Your task to perform on an android device: Go to accessibility settings Image 0: 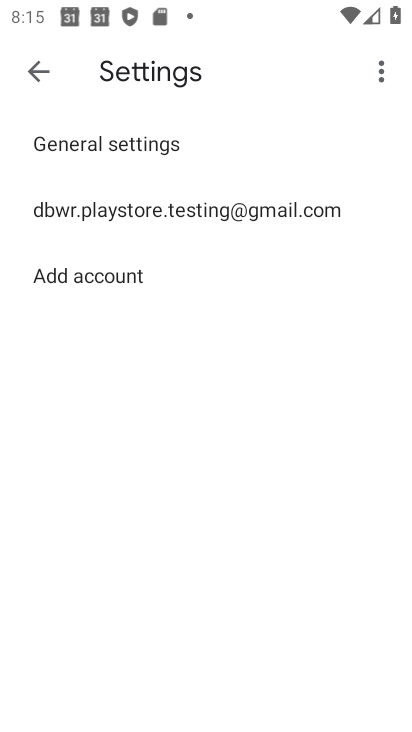
Step 0: press home button
Your task to perform on an android device: Go to accessibility settings Image 1: 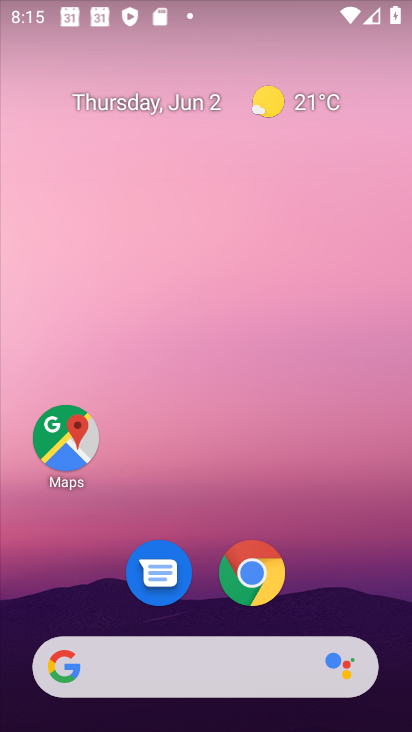
Step 1: drag from (213, 564) to (325, 67)
Your task to perform on an android device: Go to accessibility settings Image 2: 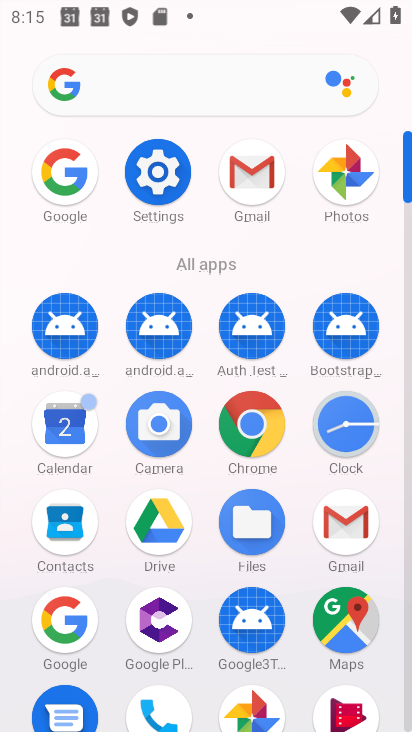
Step 2: click (153, 163)
Your task to perform on an android device: Go to accessibility settings Image 3: 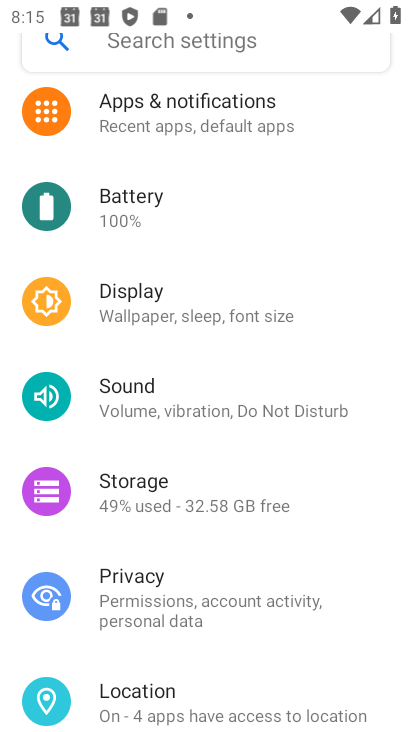
Step 3: drag from (225, 655) to (240, 132)
Your task to perform on an android device: Go to accessibility settings Image 4: 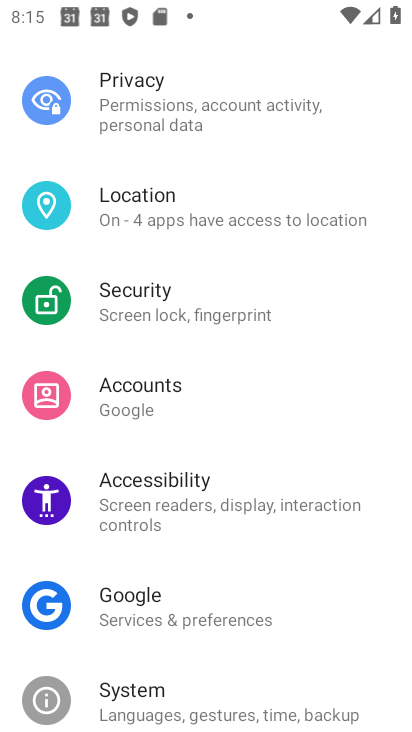
Step 4: click (175, 498)
Your task to perform on an android device: Go to accessibility settings Image 5: 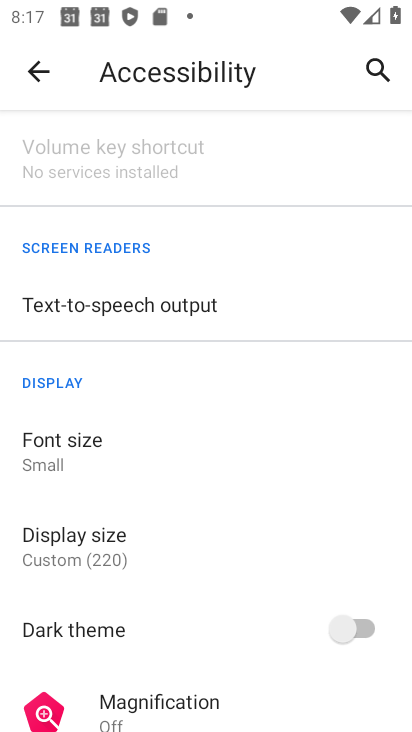
Step 5: task complete